Your task to perform on an android device: turn on the 24-hour format for clock Image 0: 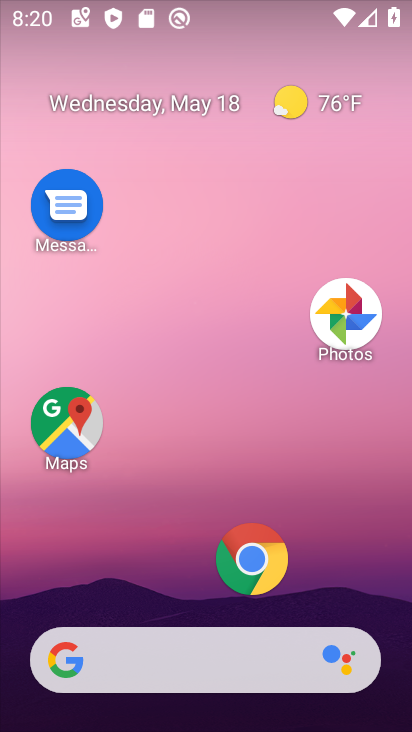
Step 0: drag from (185, 596) to (178, 21)
Your task to perform on an android device: turn on the 24-hour format for clock Image 1: 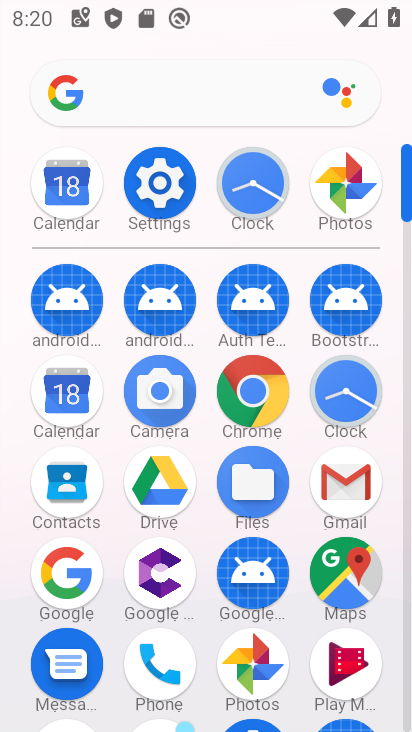
Step 1: click (342, 399)
Your task to perform on an android device: turn on the 24-hour format for clock Image 2: 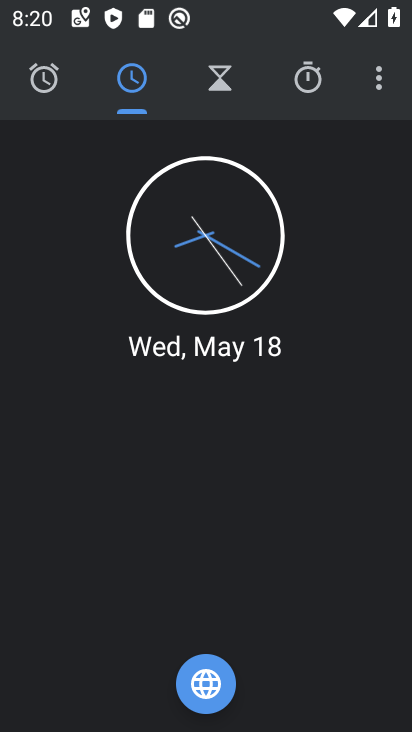
Step 2: click (381, 96)
Your task to perform on an android device: turn on the 24-hour format for clock Image 3: 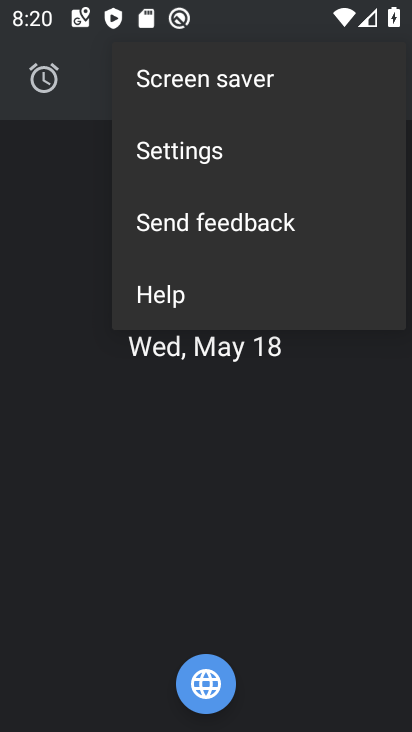
Step 3: click (228, 147)
Your task to perform on an android device: turn on the 24-hour format for clock Image 4: 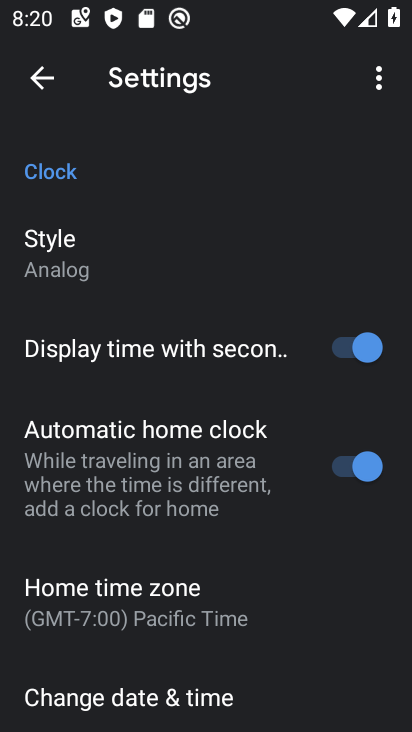
Step 4: drag from (195, 614) to (209, 279)
Your task to perform on an android device: turn on the 24-hour format for clock Image 5: 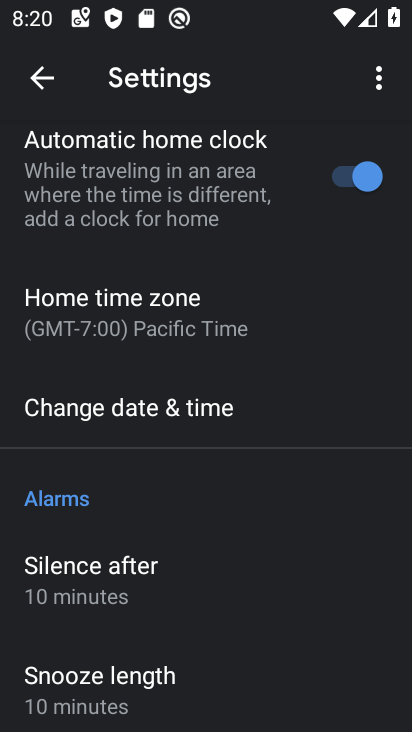
Step 5: click (131, 431)
Your task to perform on an android device: turn on the 24-hour format for clock Image 6: 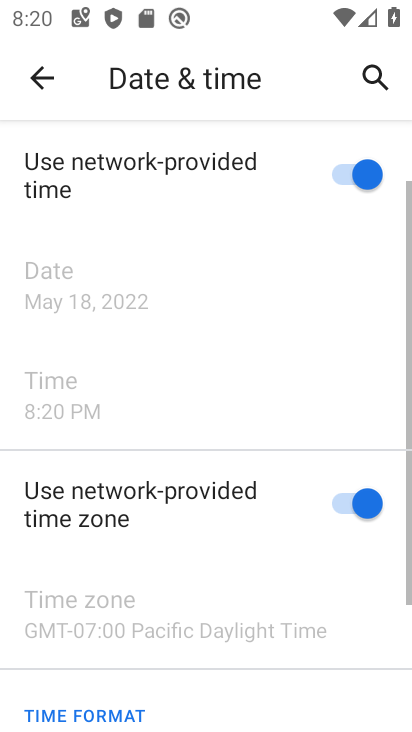
Step 6: drag from (307, 581) to (241, 4)
Your task to perform on an android device: turn on the 24-hour format for clock Image 7: 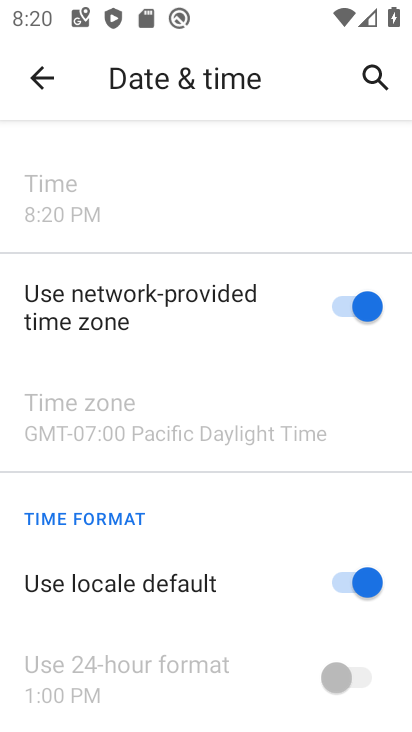
Step 7: click (328, 582)
Your task to perform on an android device: turn on the 24-hour format for clock Image 8: 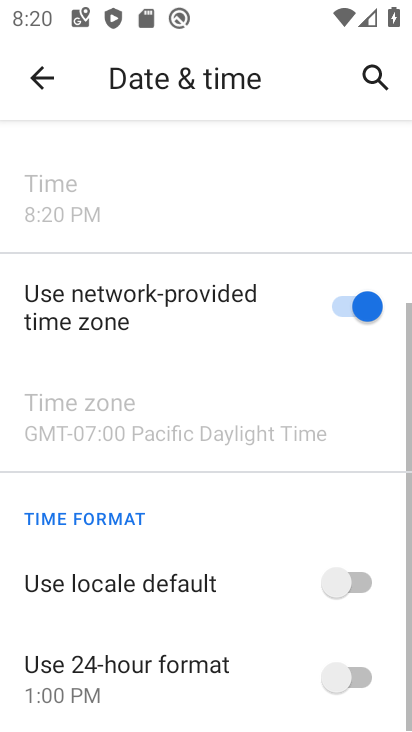
Step 8: click (350, 673)
Your task to perform on an android device: turn on the 24-hour format for clock Image 9: 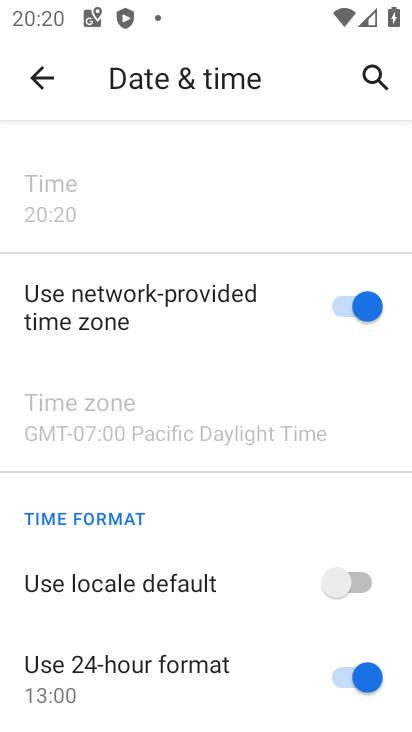
Step 9: task complete